Your task to perform on an android device: Go to calendar. Show me events next week Image 0: 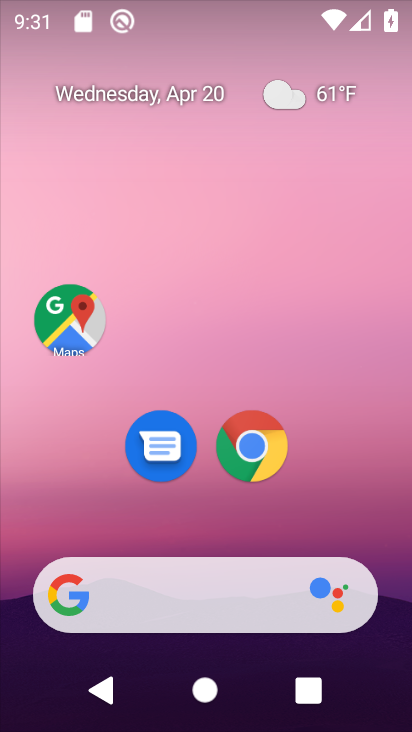
Step 0: click (346, 116)
Your task to perform on an android device: Go to calendar. Show me events next week Image 1: 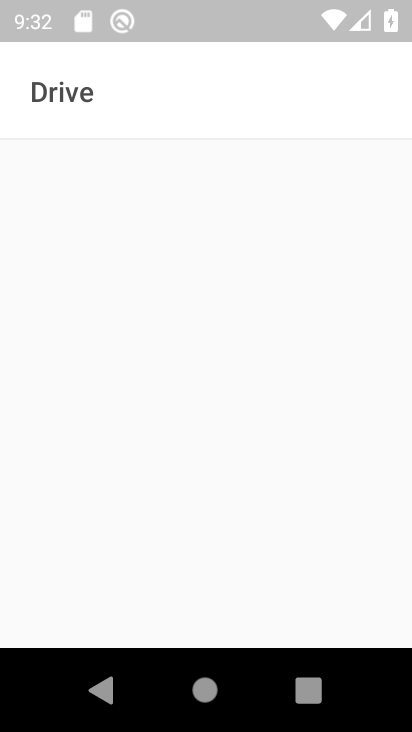
Step 1: press home button
Your task to perform on an android device: Go to calendar. Show me events next week Image 2: 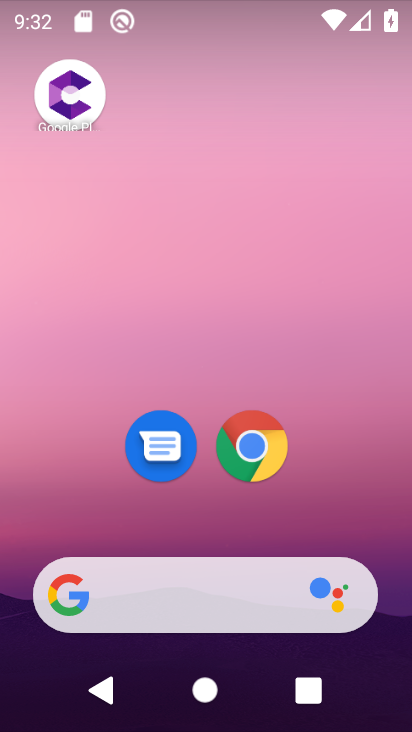
Step 2: drag from (369, 497) to (331, 134)
Your task to perform on an android device: Go to calendar. Show me events next week Image 3: 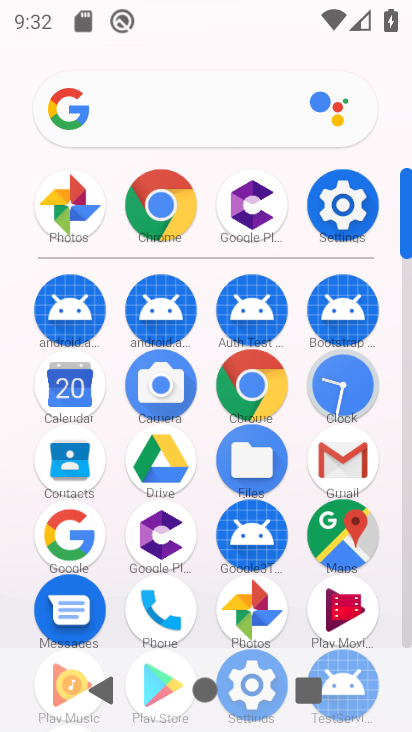
Step 3: click (71, 400)
Your task to perform on an android device: Go to calendar. Show me events next week Image 4: 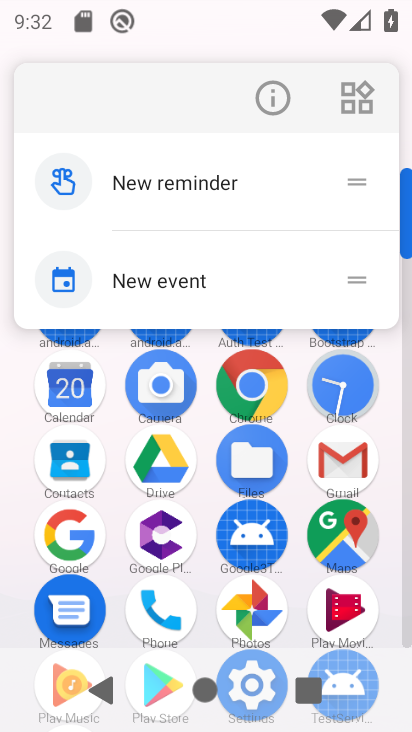
Step 4: click (71, 396)
Your task to perform on an android device: Go to calendar. Show me events next week Image 5: 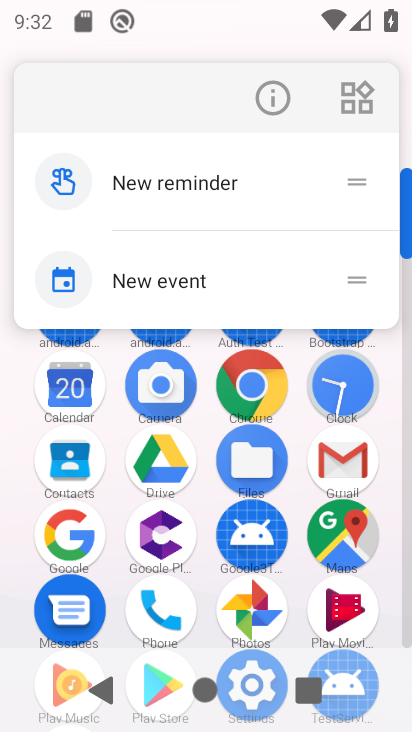
Step 5: click (70, 396)
Your task to perform on an android device: Go to calendar. Show me events next week Image 6: 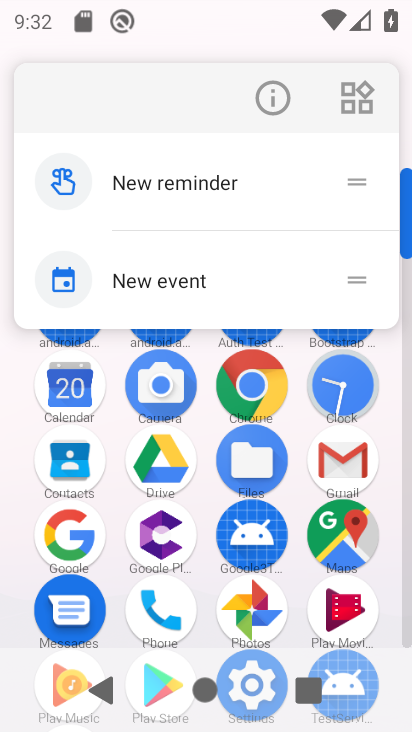
Step 6: click (51, 399)
Your task to perform on an android device: Go to calendar. Show me events next week Image 7: 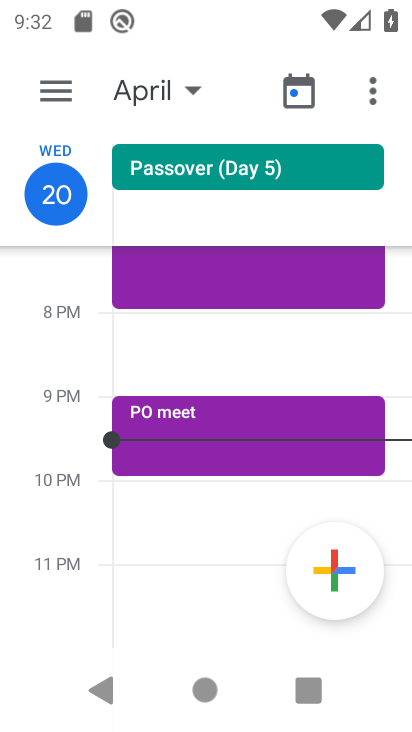
Step 7: click (139, 95)
Your task to perform on an android device: Go to calendar. Show me events next week Image 8: 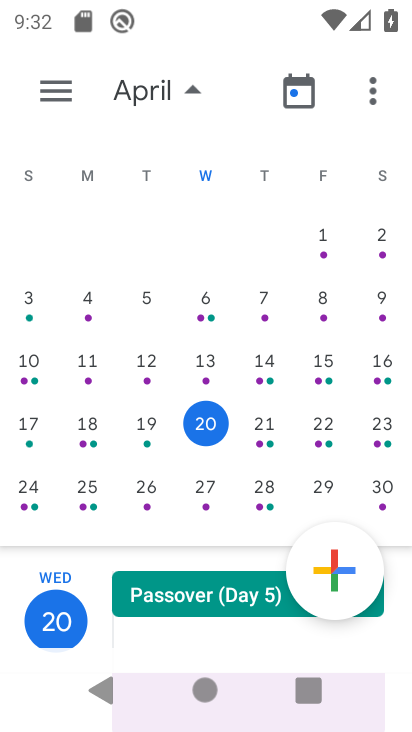
Step 8: click (25, 491)
Your task to perform on an android device: Go to calendar. Show me events next week Image 9: 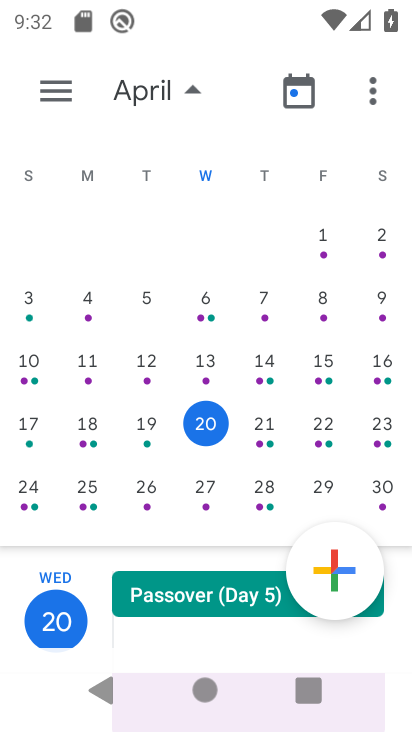
Step 9: click (28, 486)
Your task to perform on an android device: Go to calendar. Show me events next week Image 10: 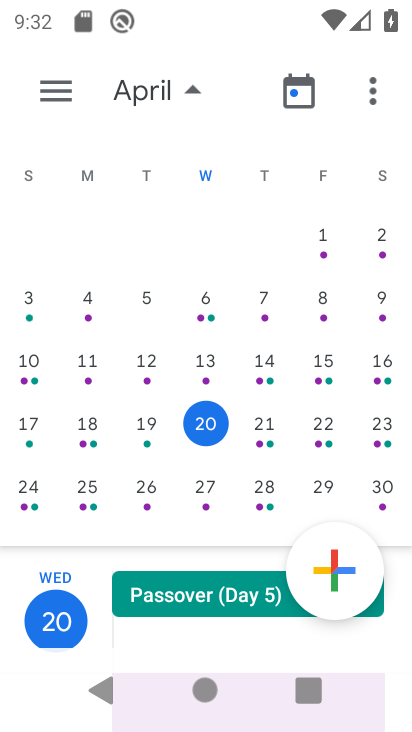
Step 10: click (35, 496)
Your task to perform on an android device: Go to calendar. Show me events next week Image 11: 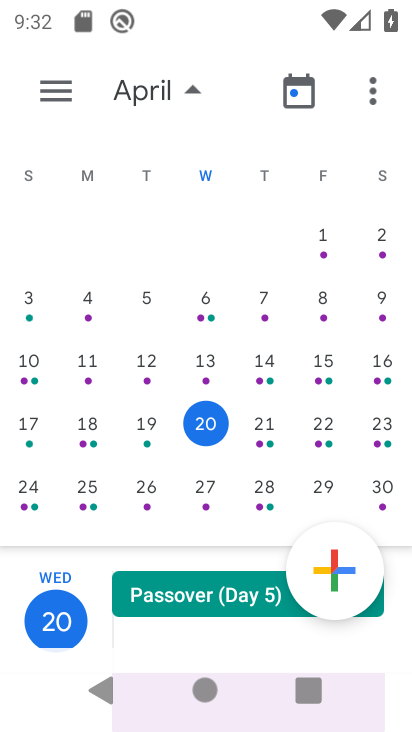
Step 11: click (28, 492)
Your task to perform on an android device: Go to calendar. Show me events next week Image 12: 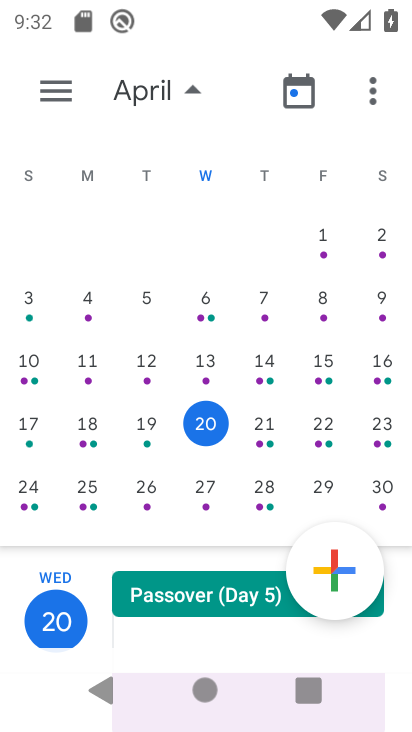
Step 12: click (33, 496)
Your task to perform on an android device: Go to calendar. Show me events next week Image 13: 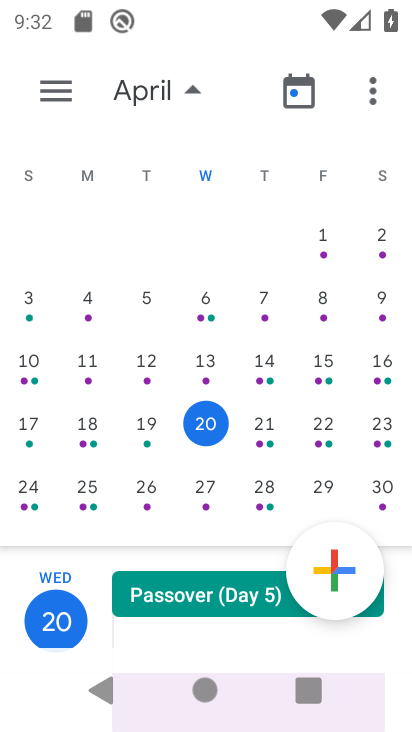
Step 13: drag from (55, 512) to (104, 389)
Your task to perform on an android device: Go to calendar. Show me events next week Image 14: 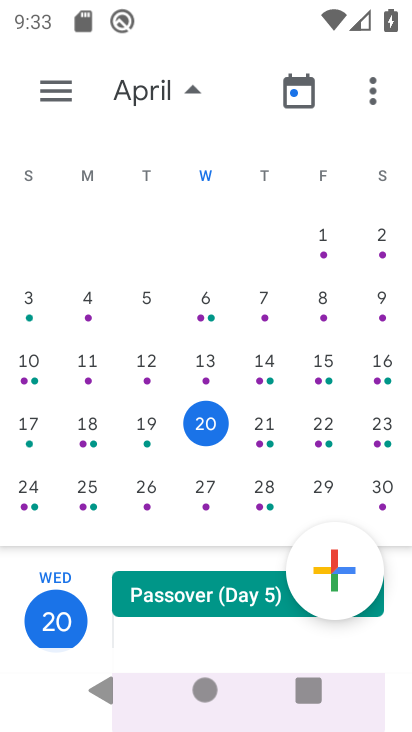
Step 14: click (34, 484)
Your task to perform on an android device: Go to calendar. Show me events next week Image 15: 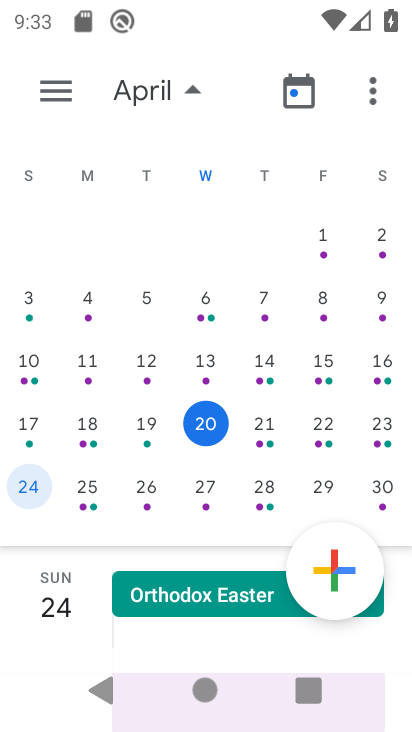
Step 15: drag from (68, 663) to (129, 430)
Your task to perform on an android device: Go to calendar. Show me events next week Image 16: 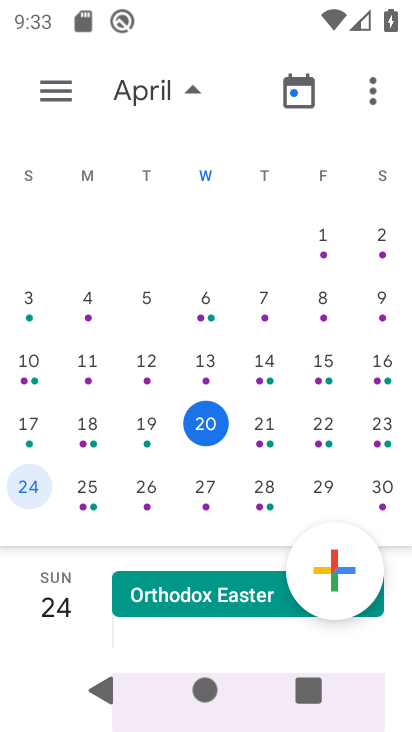
Step 16: drag from (65, 563) to (86, 467)
Your task to perform on an android device: Go to calendar. Show me events next week Image 17: 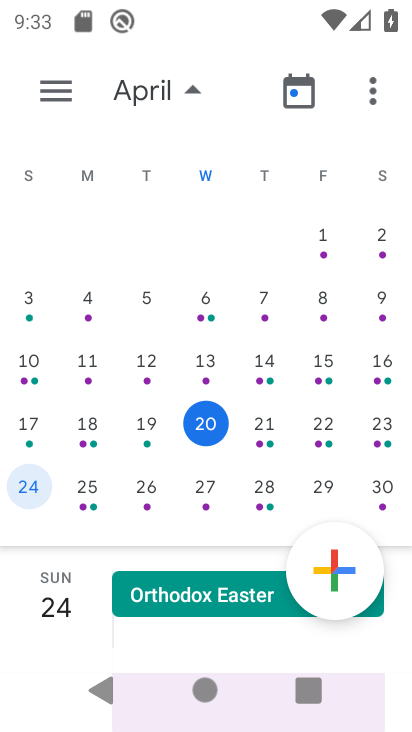
Step 17: drag from (70, 625) to (73, 480)
Your task to perform on an android device: Go to calendar. Show me events next week Image 18: 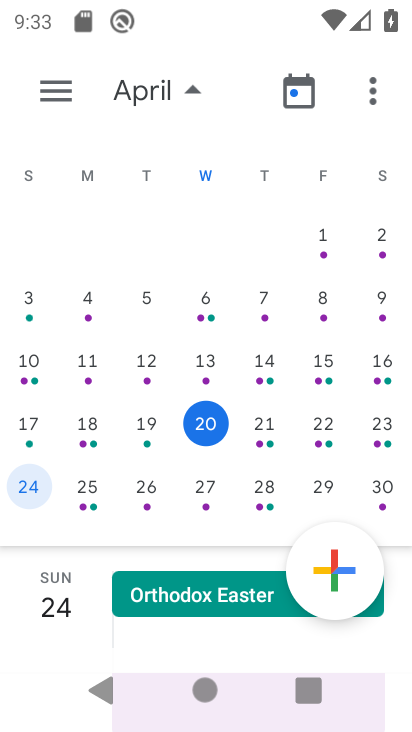
Step 18: click (42, 87)
Your task to perform on an android device: Go to calendar. Show me events next week Image 19: 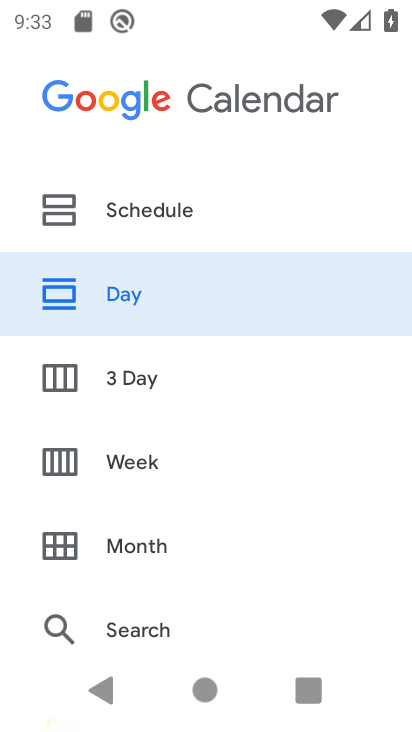
Step 19: click (104, 212)
Your task to perform on an android device: Go to calendar. Show me events next week Image 20: 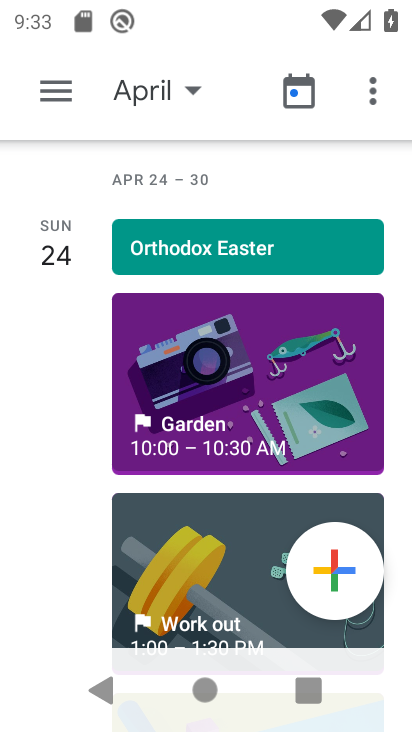
Step 20: task complete